Your task to perform on an android device: Open Reddit.com Image 0: 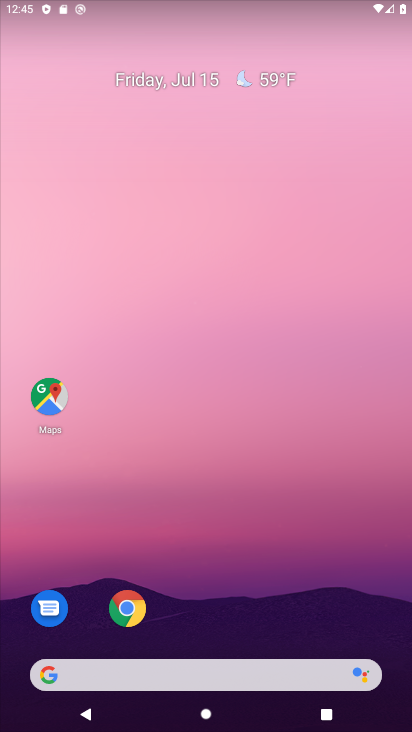
Step 0: click (142, 616)
Your task to perform on an android device: Open Reddit.com Image 1: 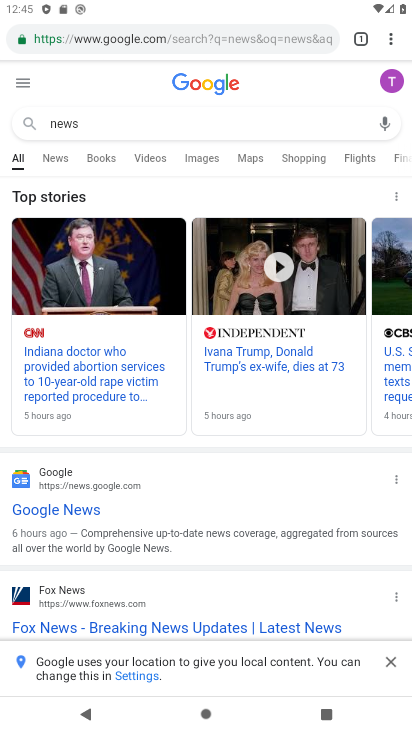
Step 1: click (125, 34)
Your task to perform on an android device: Open Reddit.com Image 2: 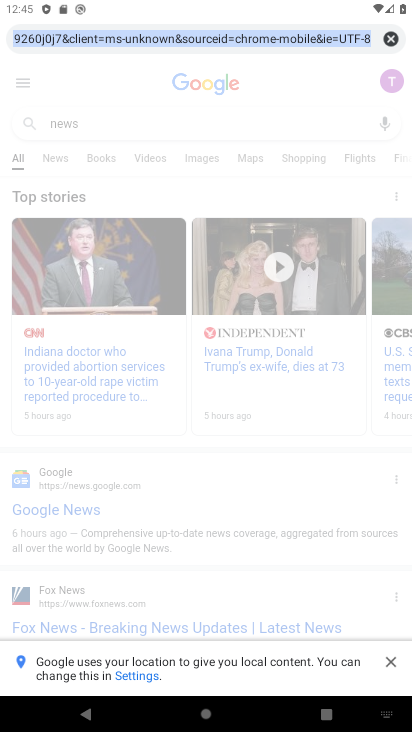
Step 2: type "reddit.com"
Your task to perform on an android device: Open Reddit.com Image 3: 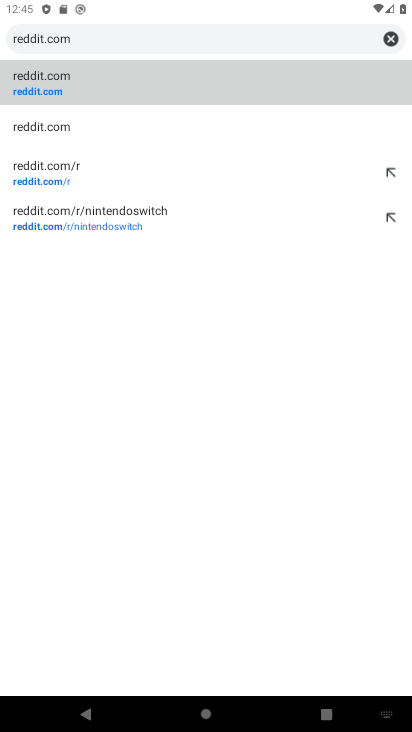
Step 3: click (123, 88)
Your task to perform on an android device: Open Reddit.com Image 4: 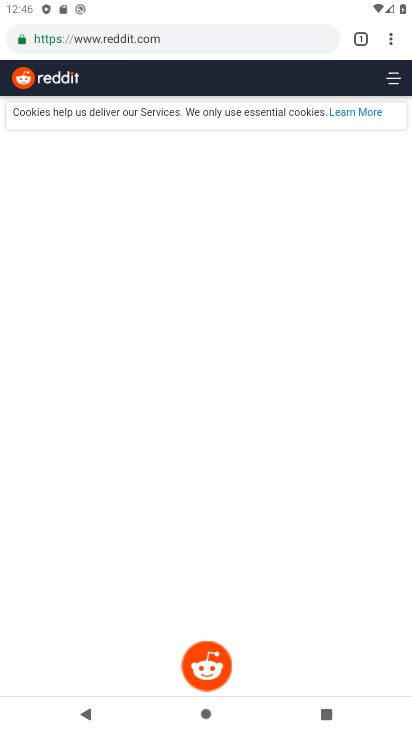
Step 4: task complete